Your task to perform on an android device: toggle sleep mode Image 0: 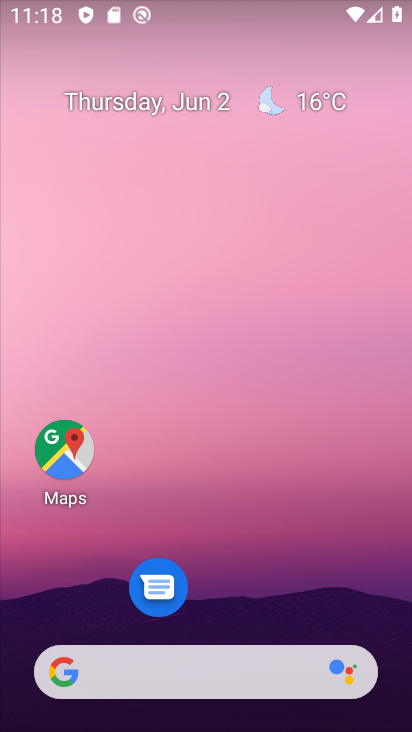
Step 0: drag from (185, 625) to (323, 55)
Your task to perform on an android device: toggle sleep mode Image 1: 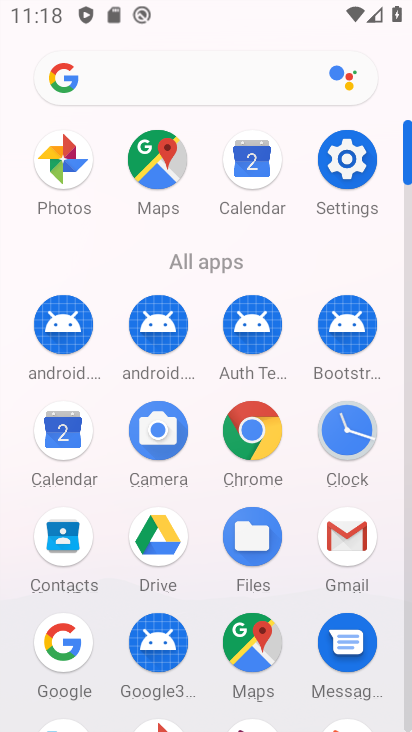
Step 1: click (364, 159)
Your task to perform on an android device: toggle sleep mode Image 2: 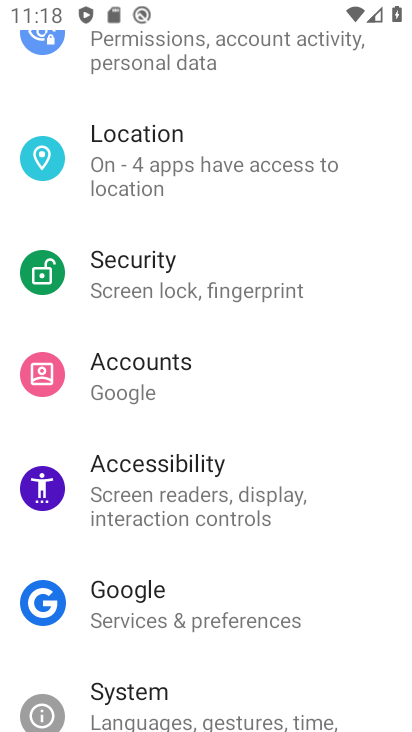
Step 2: task complete